Your task to perform on an android device: turn on notifications settings in the gmail app Image 0: 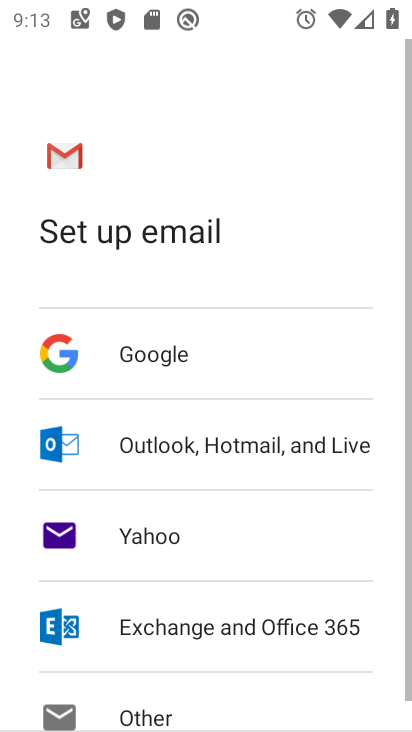
Step 0: press back button
Your task to perform on an android device: turn on notifications settings in the gmail app Image 1: 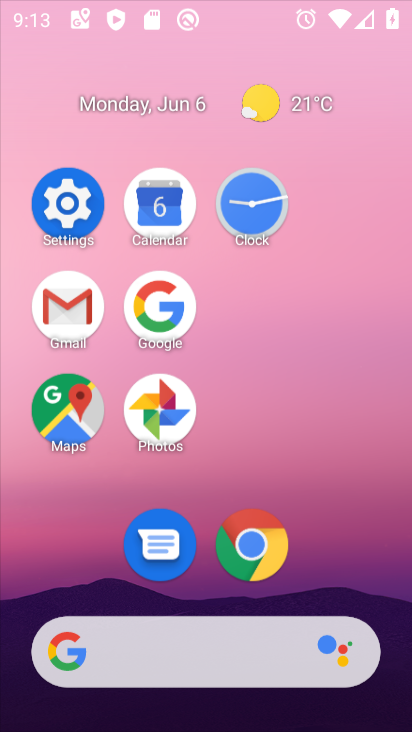
Step 1: press home button
Your task to perform on an android device: turn on notifications settings in the gmail app Image 2: 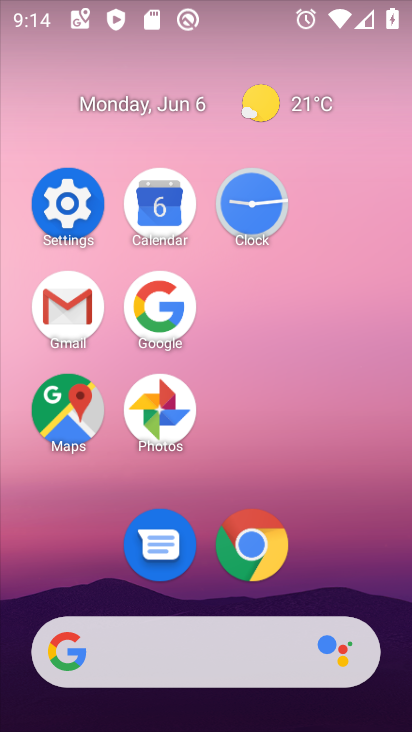
Step 2: click (84, 322)
Your task to perform on an android device: turn on notifications settings in the gmail app Image 3: 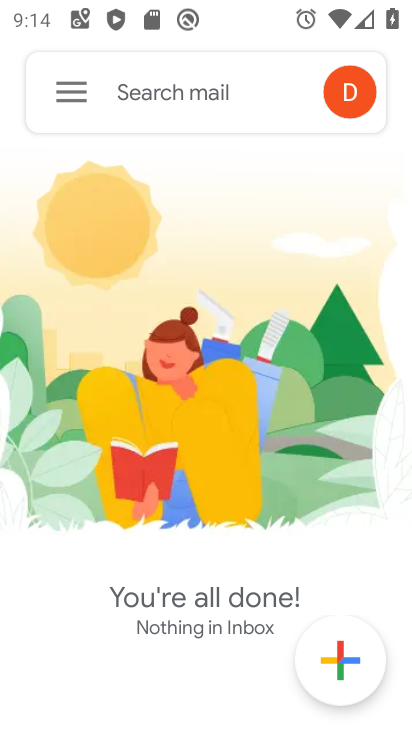
Step 3: click (86, 86)
Your task to perform on an android device: turn on notifications settings in the gmail app Image 4: 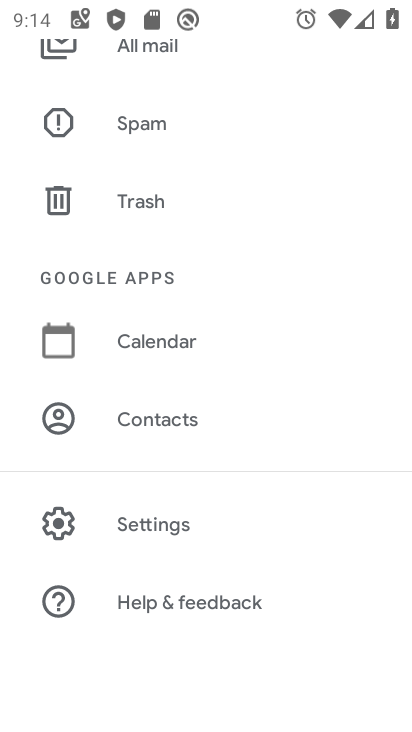
Step 4: click (216, 540)
Your task to perform on an android device: turn on notifications settings in the gmail app Image 5: 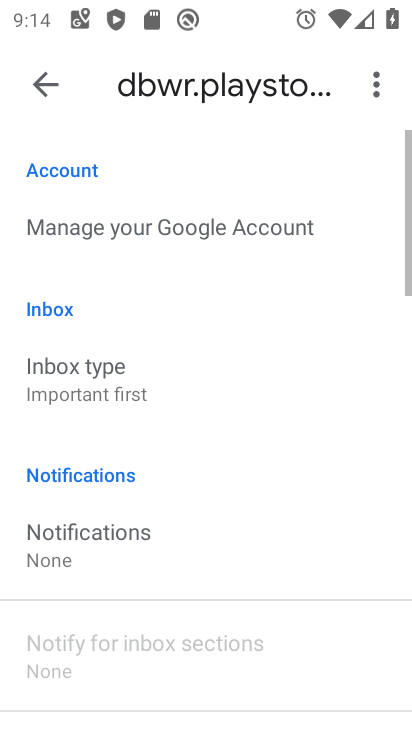
Step 5: click (158, 576)
Your task to perform on an android device: turn on notifications settings in the gmail app Image 6: 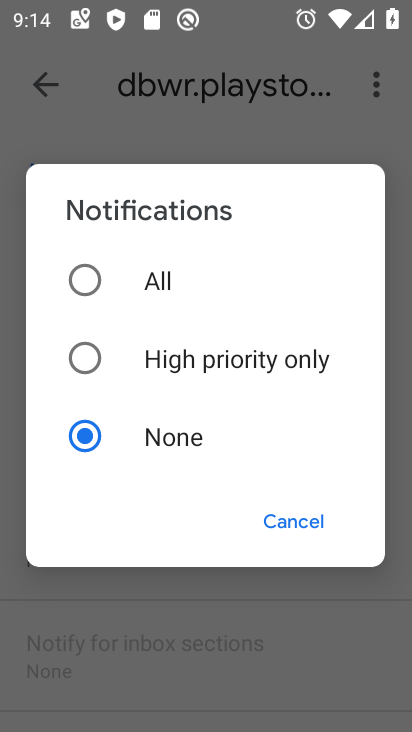
Step 6: click (103, 292)
Your task to perform on an android device: turn on notifications settings in the gmail app Image 7: 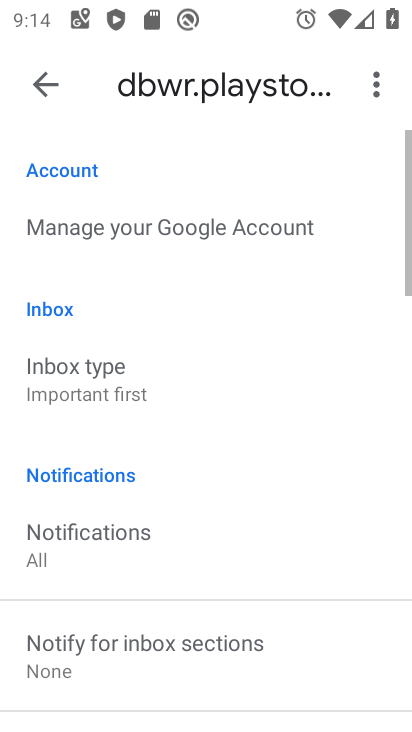
Step 7: task complete